Your task to perform on an android device: Go to internet settings Image 0: 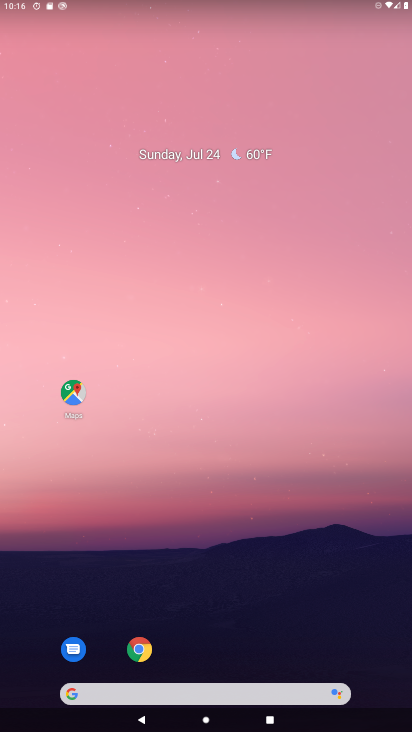
Step 0: drag from (293, 380) to (196, 4)
Your task to perform on an android device: Go to internet settings Image 1: 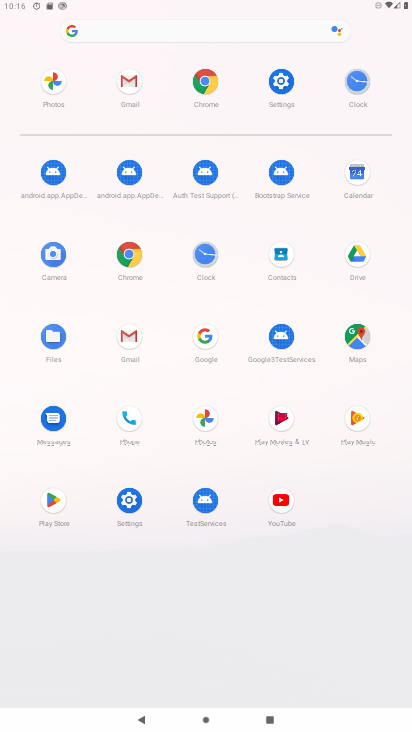
Step 1: click (285, 81)
Your task to perform on an android device: Go to internet settings Image 2: 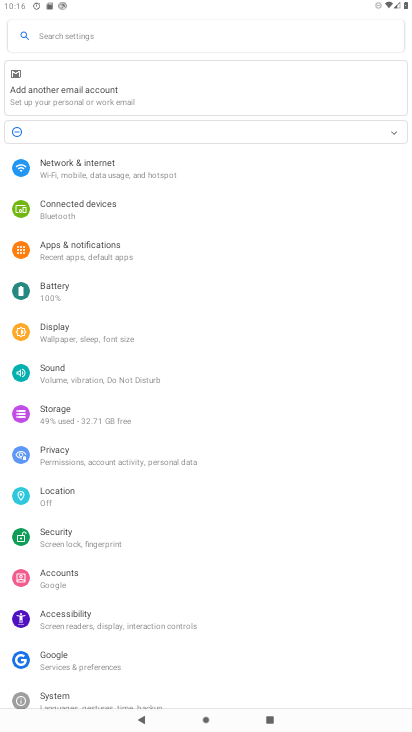
Step 2: click (129, 172)
Your task to perform on an android device: Go to internet settings Image 3: 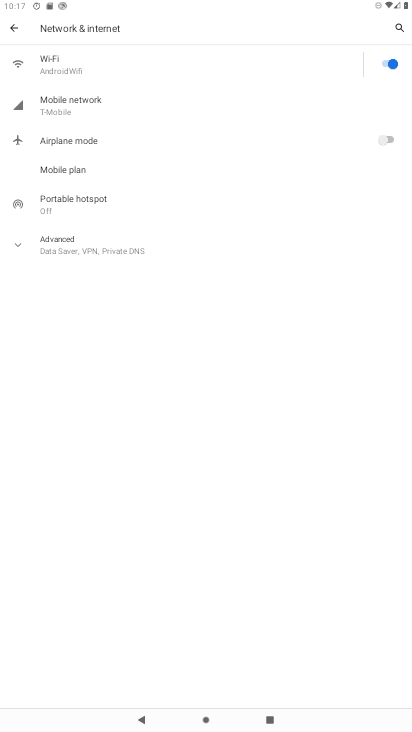
Step 3: click (71, 234)
Your task to perform on an android device: Go to internet settings Image 4: 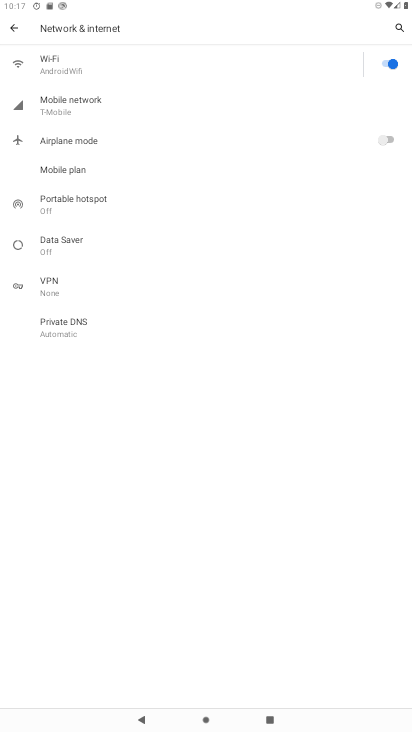
Step 4: task complete